Your task to perform on an android device: See recent photos Image 0: 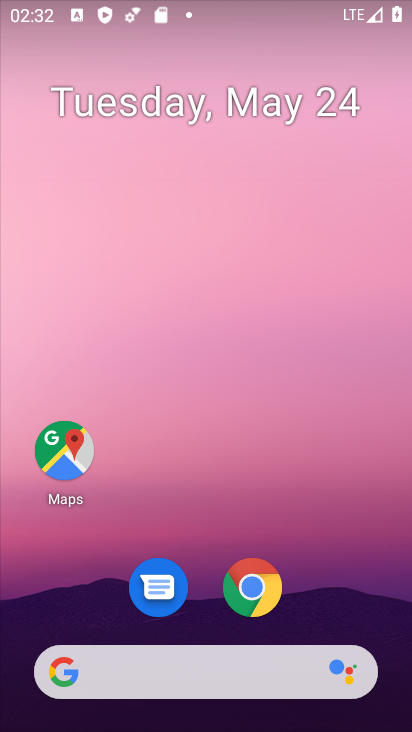
Step 0: drag from (225, 516) to (218, 185)
Your task to perform on an android device: See recent photos Image 1: 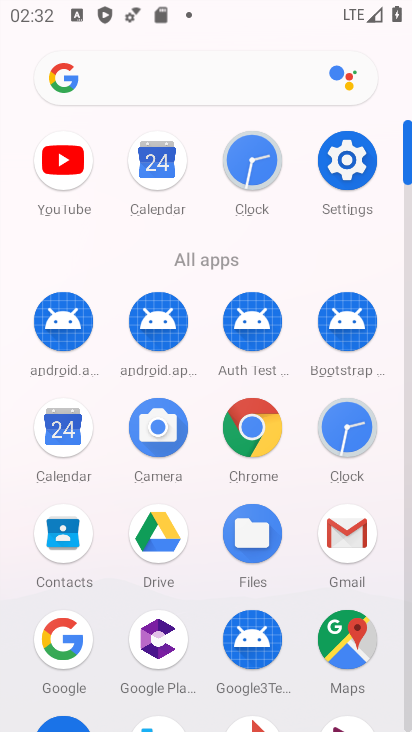
Step 1: drag from (254, 575) to (230, 124)
Your task to perform on an android device: See recent photos Image 2: 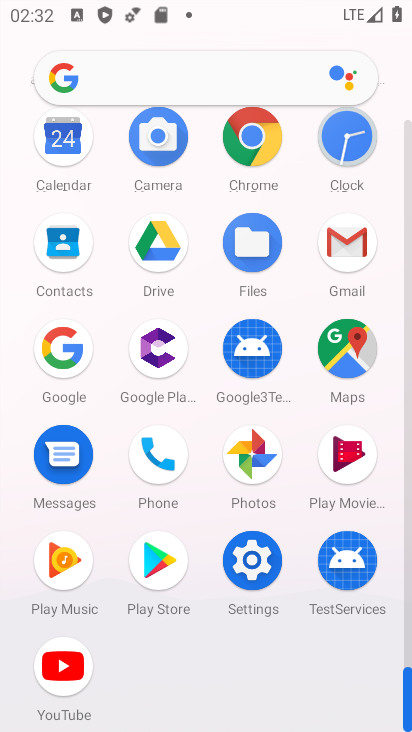
Step 2: click (250, 471)
Your task to perform on an android device: See recent photos Image 3: 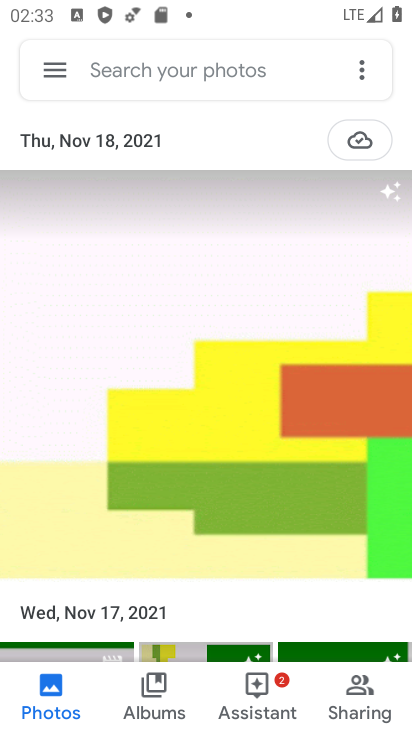
Step 3: task complete